Your task to perform on an android device: turn notification dots on Image 0: 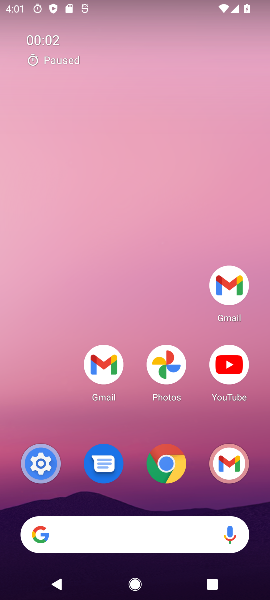
Step 0: drag from (150, 560) to (102, 246)
Your task to perform on an android device: turn notification dots on Image 1: 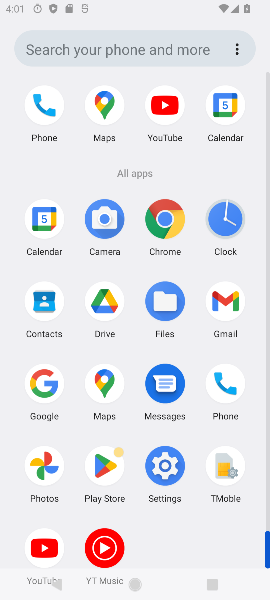
Step 1: drag from (137, 476) to (130, 326)
Your task to perform on an android device: turn notification dots on Image 2: 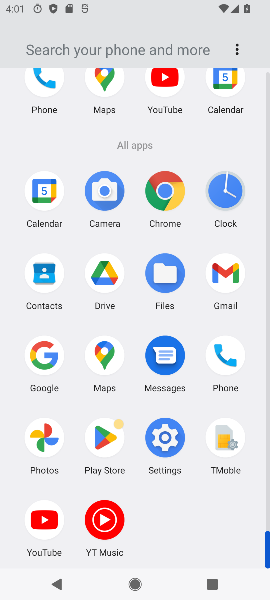
Step 2: click (165, 433)
Your task to perform on an android device: turn notification dots on Image 3: 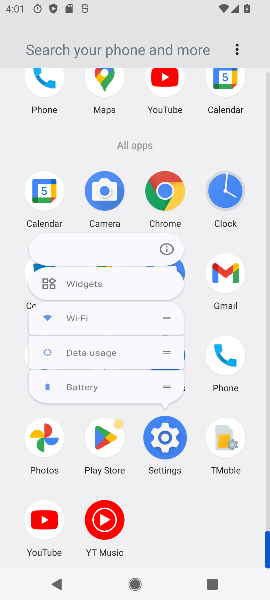
Step 3: click (164, 434)
Your task to perform on an android device: turn notification dots on Image 4: 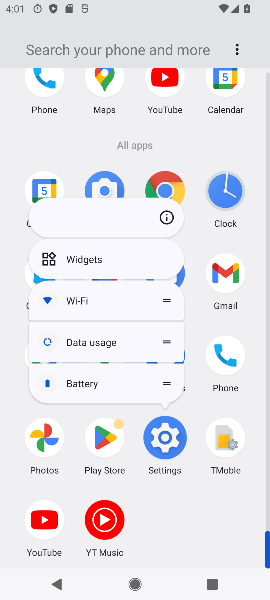
Step 4: click (164, 434)
Your task to perform on an android device: turn notification dots on Image 5: 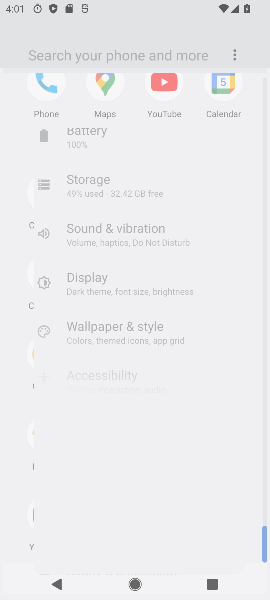
Step 5: click (164, 435)
Your task to perform on an android device: turn notification dots on Image 6: 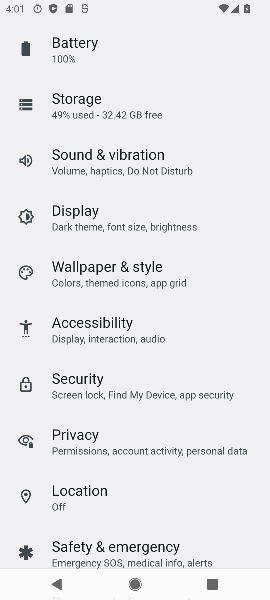
Step 6: click (164, 435)
Your task to perform on an android device: turn notification dots on Image 7: 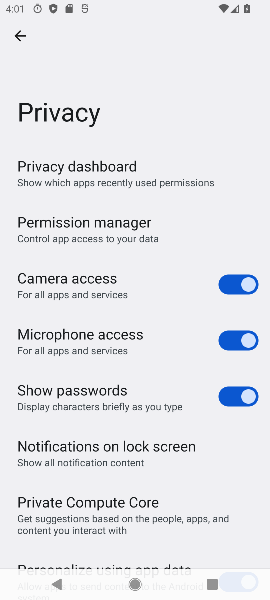
Step 7: click (25, 41)
Your task to perform on an android device: turn notification dots on Image 8: 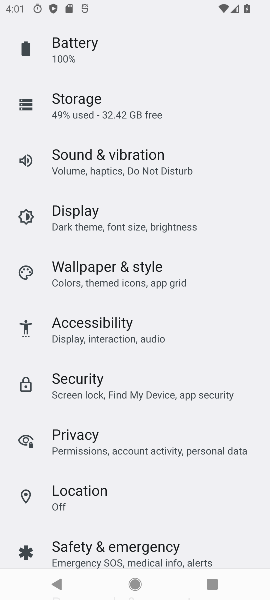
Step 8: drag from (109, 472) to (49, 187)
Your task to perform on an android device: turn notification dots on Image 9: 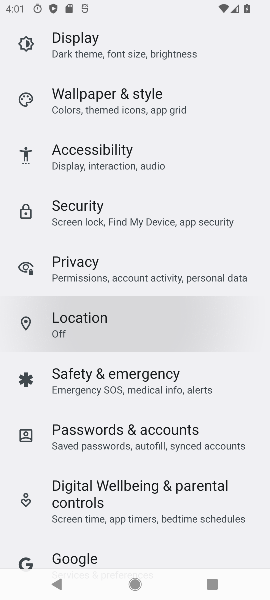
Step 9: drag from (103, 495) to (119, 258)
Your task to perform on an android device: turn notification dots on Image 10: 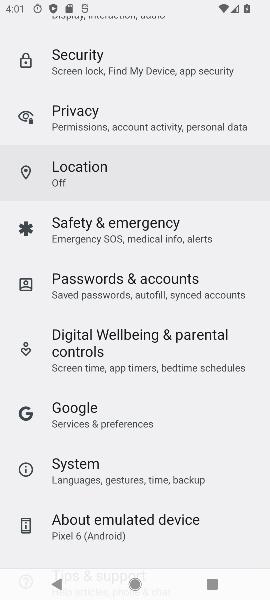
Step 10: drag from (122, 440) to (122, 292)
Your task to perform on an android device: turn notification dots on Image 11: 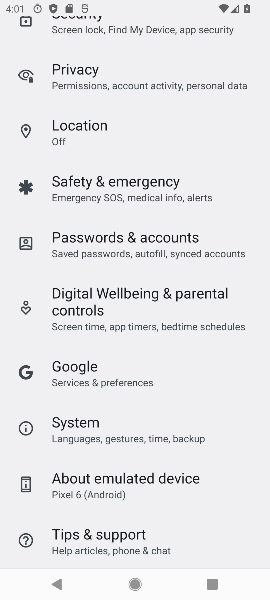
Step 11: drag from (126, 423) to (120, 167)
Your task to perform on an android device: turn notification dots on Image 12: 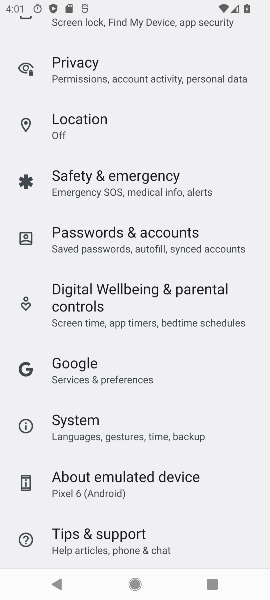
Step 12: drag from (89, 476) to (60, 258)
Your task to perform on an android device: turn notification dots on Image 13: 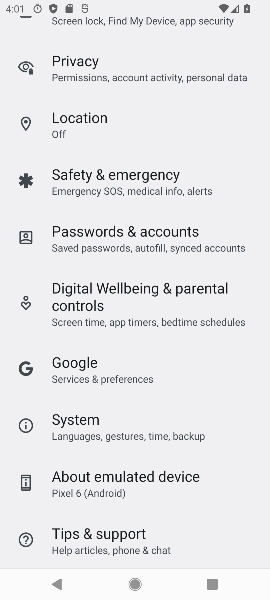
Step 13: drag from (107, 401) to (107, 222)
Your task to perform on an android device: turn notification dots on Image 14: 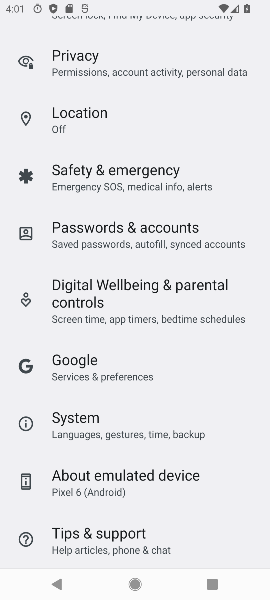
Step 14: drag from (110, 384) to (110, 295)
Your task to perform on an android device: turn notification dots on Image 15: 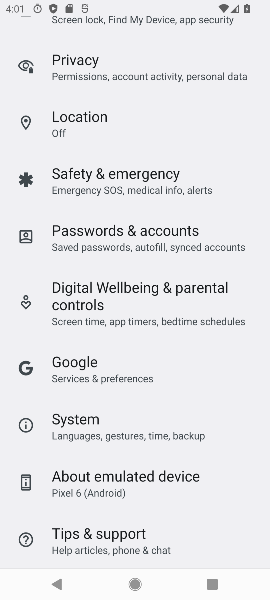
Step 15: drag from (113, 227) to (114, 410)
Your task to perform on an android device: turn notification dots on Image 16: 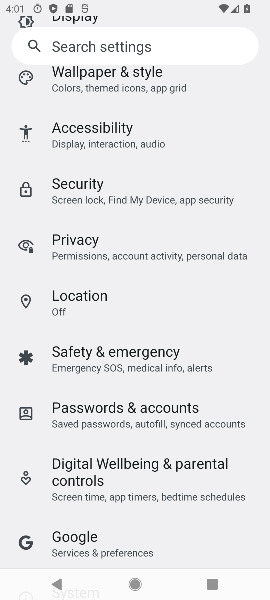
Step 16: drag from (114, 234) to (105, 388)
Your task to perform on an android device: turn notification dots on Image 17: 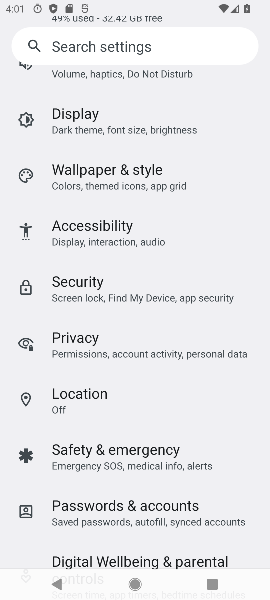
Step 17: drag from (97, 248) to (119, 408)
Your task to perform on an android device: turn notification dots on Image 18: 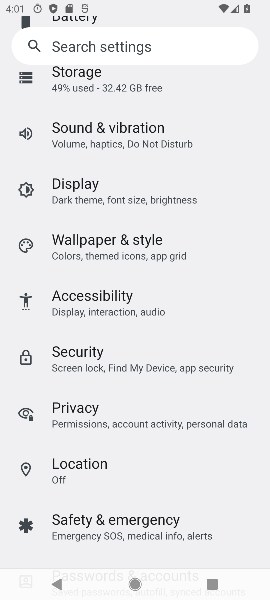
Step 18: drag from (93, 162) to (138, 351)
Your task to perform on an android device: turn notification dots on Image 19: 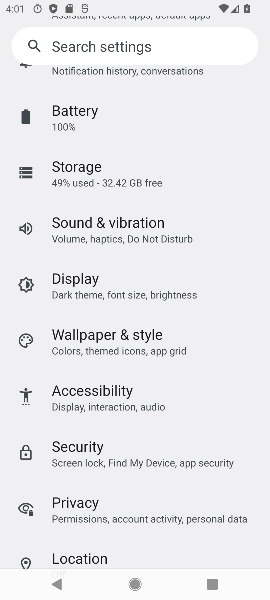
Step 19: drag from (114, 164) to (138, 365)
Your task to perform on an android device: turn notification dots on Image 20: 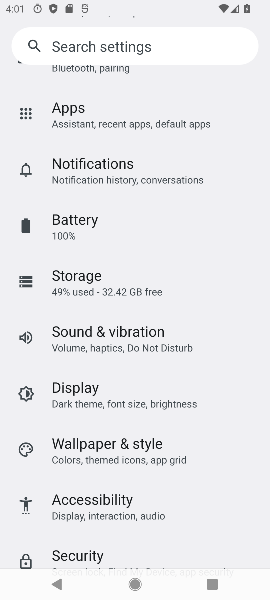
Step 20: click (107, 171)
Your task to perform on an android device: turn notification dots on Image 21: 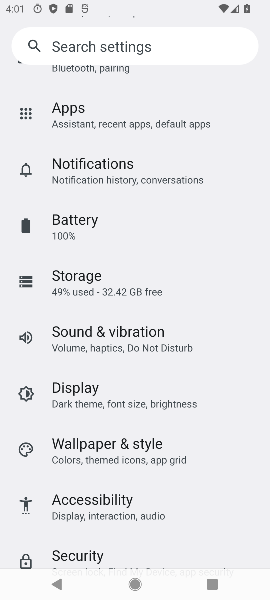
Step 21: click (107, 171)
Your task to perform on an android device: turn notification dots on Image 22: 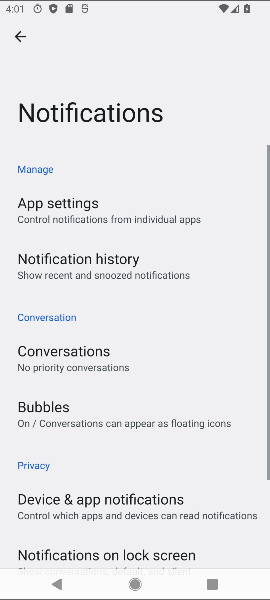
Step 22: click (107, 171)
Your task to perform on an android device: turn notification dots on Image 23: 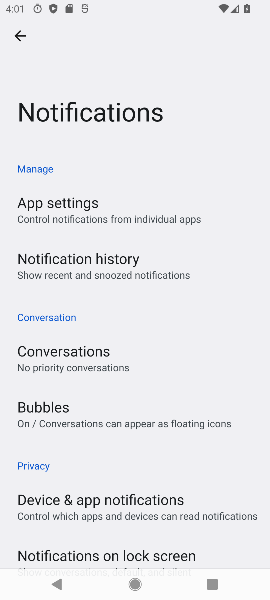
Step 23: drag from (93, 478) to (56, 219)
Your task to perform on an android device: turn notification dots on Image 24: 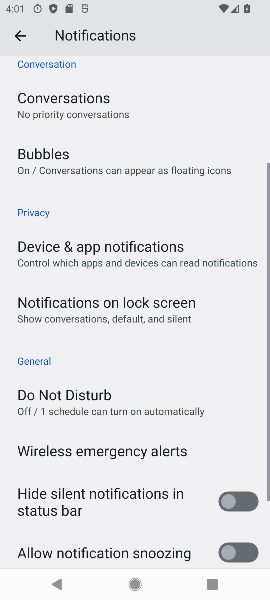
Step 24: drag from (57, 466) to (51, 196)
Your task to perform on an android device: turn notification dots on Image 25: 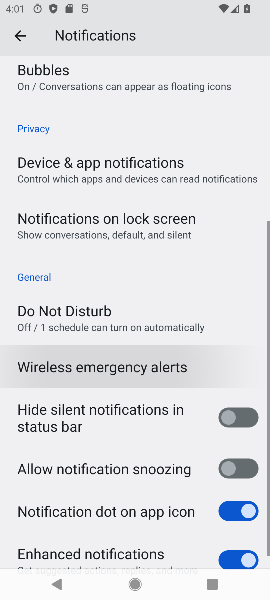
Step 25: drag from (97, 416) to (96, 310)
Your task to perform on an android device: turn notification dots on Image 26: 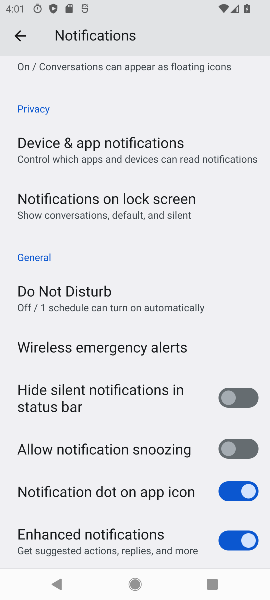
Step 26: drag from (168, 511) to (133, 306)
Your task to perform on an android device: turn notification dots on Image 27: 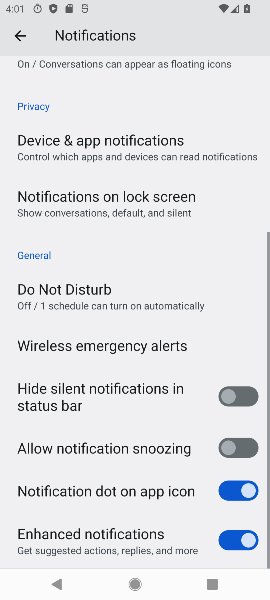
Step 27: drag from (107, 347) to (116, 277)
Your task to perform on an android device: turn notification dots on Image 28: 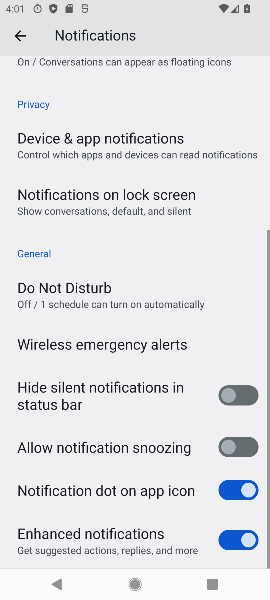
Step 28: drag from (118, 430) to (123, 236)
Your task to perform on an android device: turn notification dots on Image 29: 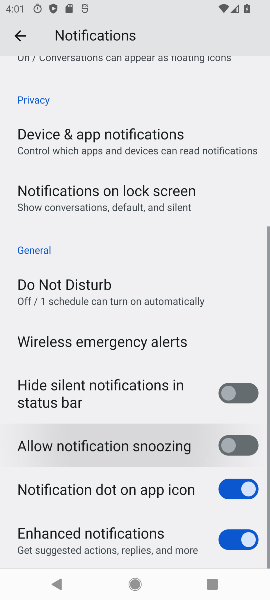
Step 29: drag from (148, 366) to (139, 257)
Your task to perform on an android device: turn notification dots on Image 30: 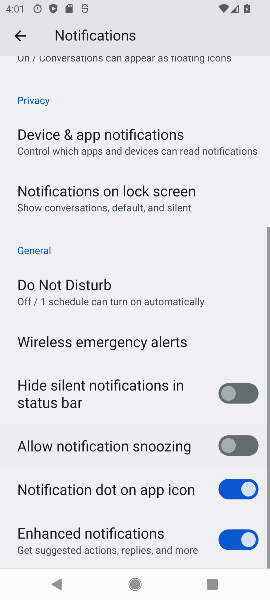
Step 30: drag from (152, 439) to (145, 381)
Your task to perform on an android device: turn notification dots on Image 31: 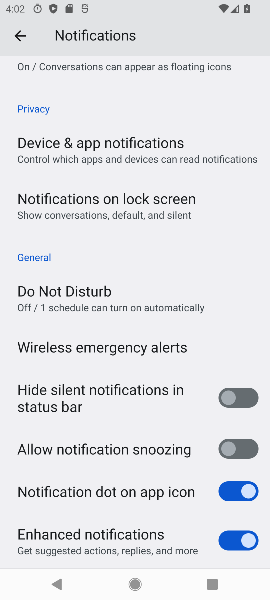
Step 31: drag from (132, 509) to (108, 244)
Your task to perform on an android device: turn notification dots on Image 32: 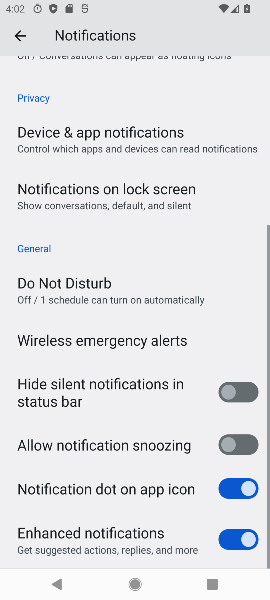
Step 32: drag from (111, 421) to (105, 368)
Your task to perform on an android device: turn notification dots on Image 33: 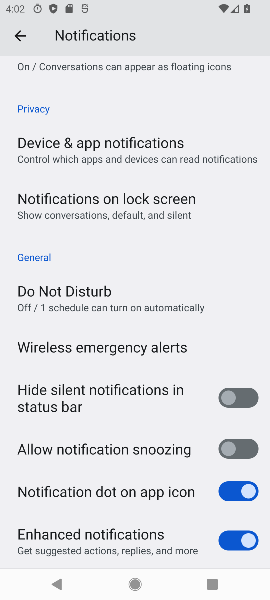
Step 33: drag from (98, 208) to (127, 413)
Your task to perform on an android device: turn notification dots on Image 34: 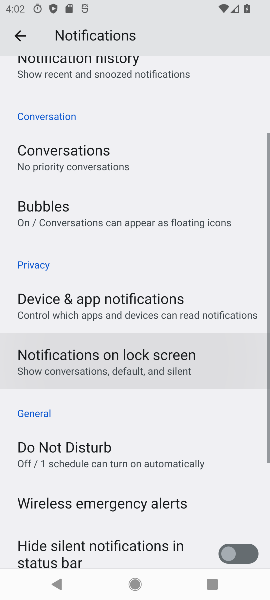
Step 34: drag from (106, 275) to (136, 378)
Your task to perform on an android device: turn notification dots on Image 35: 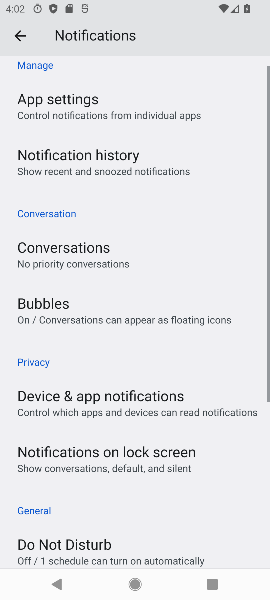
Step 35: drag from (116, 312) to (137, 475)
Your task to perform on an android device: turn notification dots on Image 36: 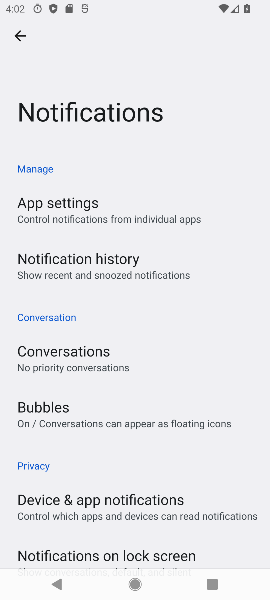
Step 36: drag from (93, 246) to (124, 471)
Your task to perform on an android device: turn notification dots on Image 37: 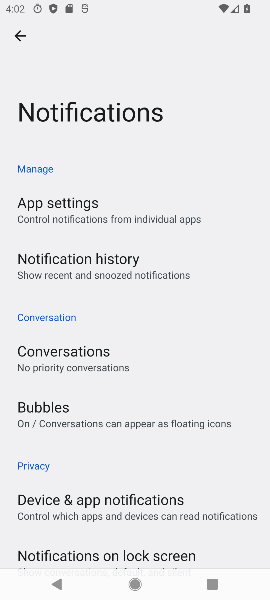
Step 37: click (118, 507)
Your task to perform on an android device: turn notification dots on Image 38: 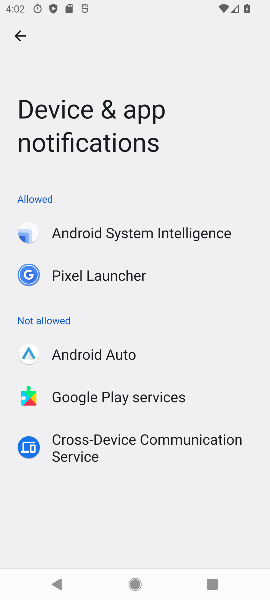
Step 38: click (20, 38)
Your task to perform on an android device: turn notification dots on Image 39: 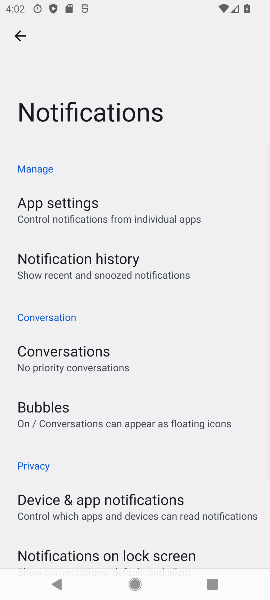
Step 39: task complete